Your task to perform on an android device: toggle notification dots Image 0: 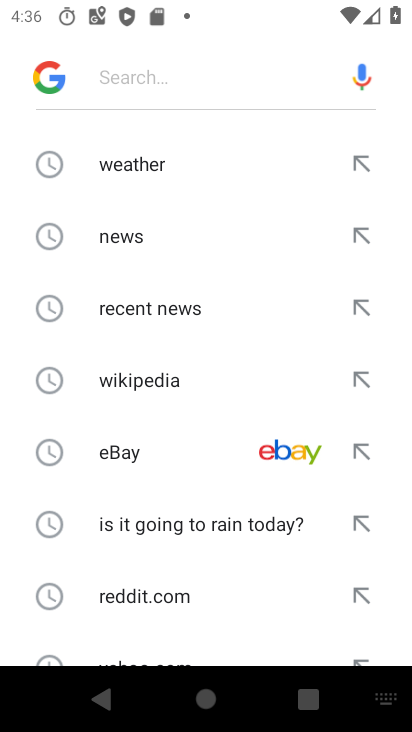
Step 0: press home button
Your task to perform on an android device: toggle notification dots Image 1: 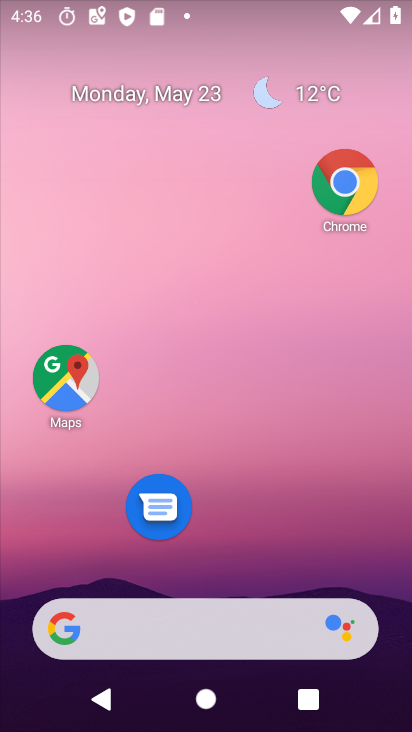
Step 1: click (156, 111)
Your task to perform on an android device: toggle notification dots Image 2: 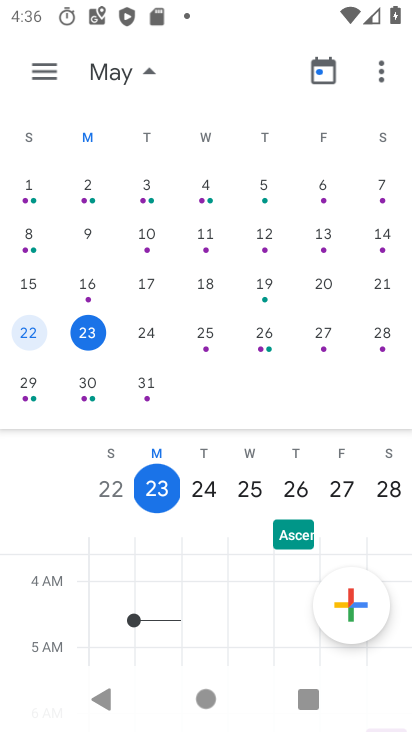
Step 2: task complete